Your task to perform on an android device: turn on notifications settings in the gmail app Image 0: 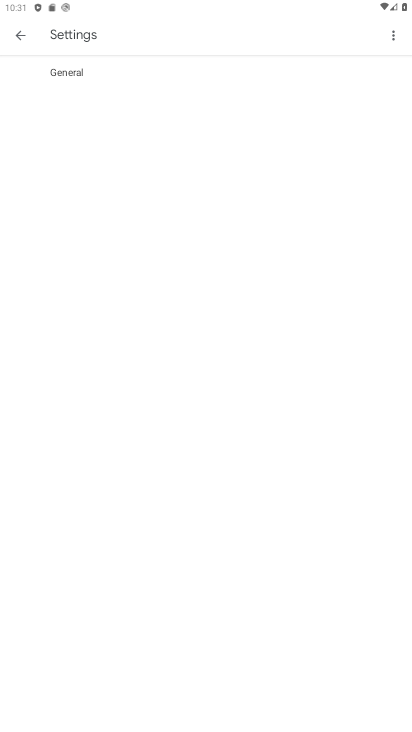
Step 0: press home button
Your task to perform on an android device: turn on notifications settings in the gmail app Image 1: 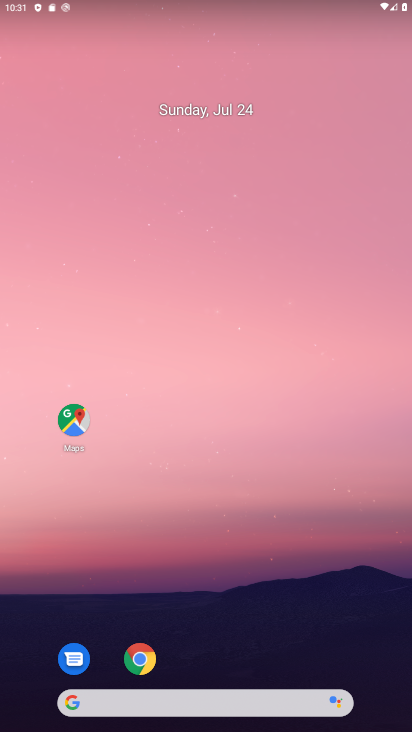
Step 1: drag from (342, 613) to (215, 29)
Your task to perform on an android device: turn on notifications settings in the gmail app Image 2: 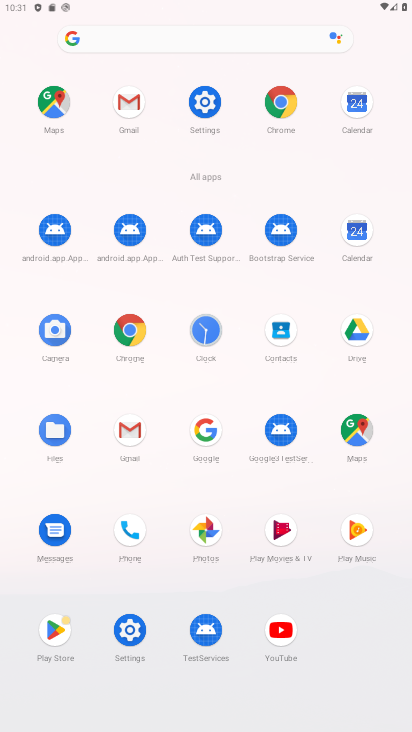
Step 2: click (126, 101)
Your task to perform on an android device: turn on notifications settings in the gmail app Image 3: 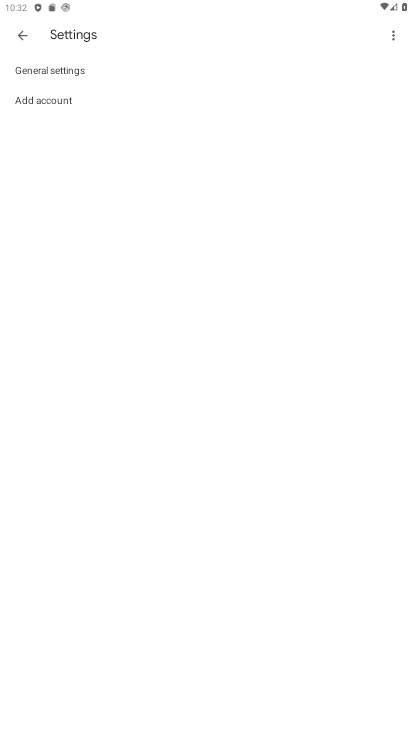
Step 3: press home button
Your task to perform on an android device: turn on notifications settings in the gmail app Image 4: 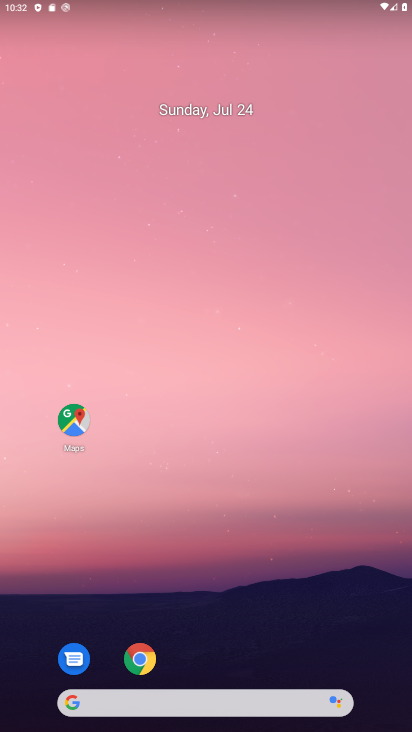
Step 4: drag from (167, 483) to (206, 14)
Your task to perform on an android device: turn on notifications settings in the gmail app Image 5: 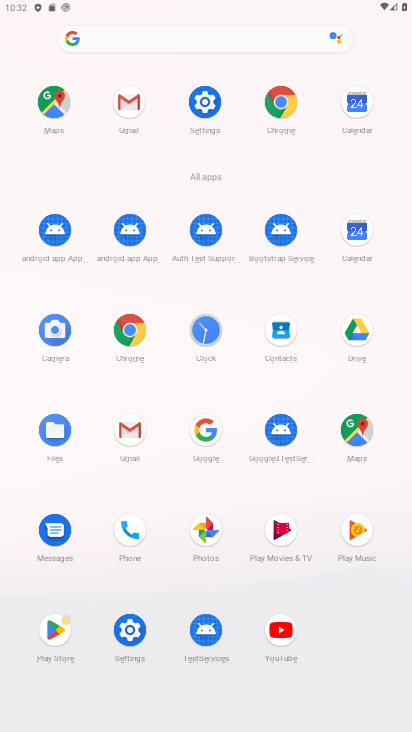
Step 5: click (127, 96)
Your task to perform on an android device: turn on notifications settings in the gmail app Image 6: 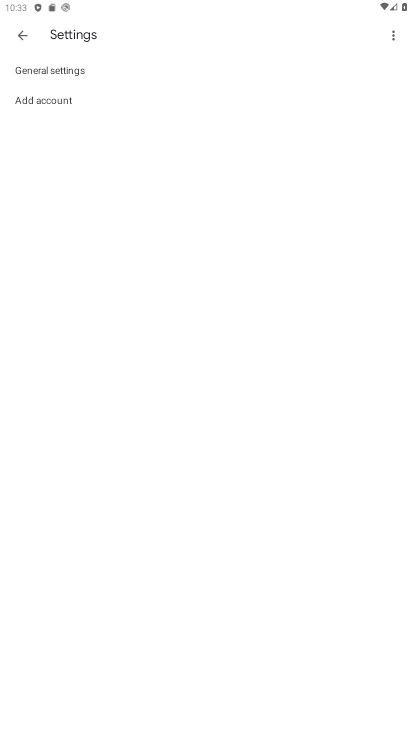
Step 6: click (18, 40)
Your task to perform on an android device: turn on notifications settings in the gmail app Image 7: 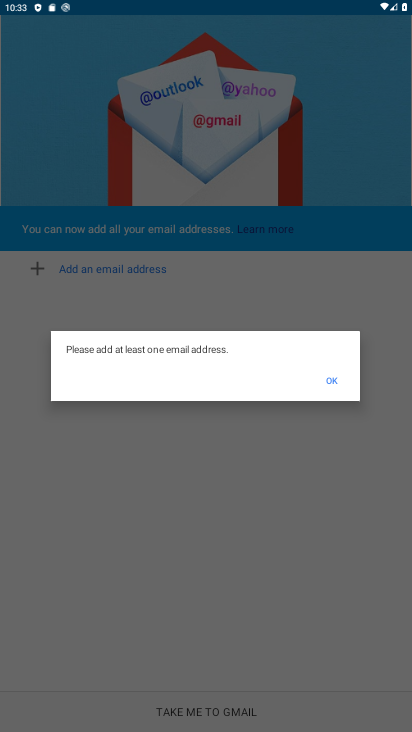
Step 7: task complete